Your task to perform on an android device: empty trash in the gmail app Image 0: 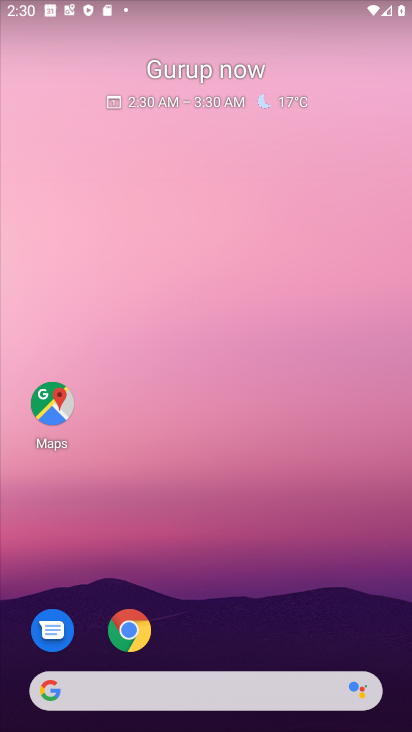
Step 0: drag from (277, 610) to (298, 70)
Your task to perform on an android device: empty trash in the gmail app Image 1: 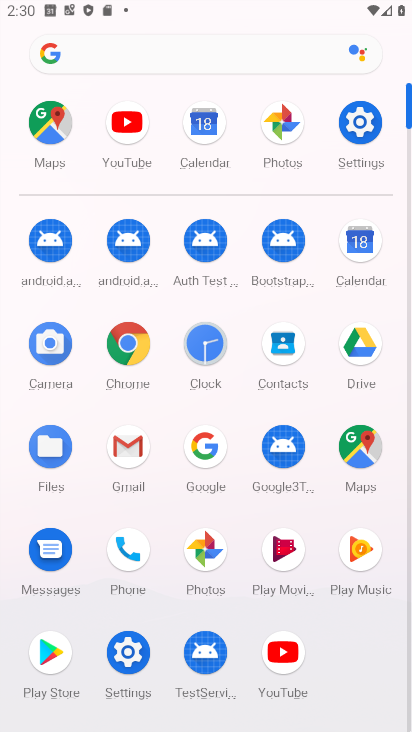
Step 1: click (133, 451)
Your task to perform on an android device: empty trash in the gmail app Image 2: 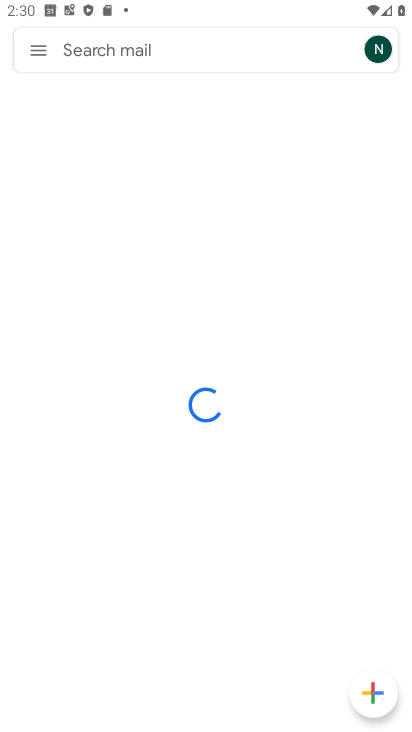
Step 2: click (41, 50)
Your task to perform on an android device: empty trash in the gmail app Image 3: 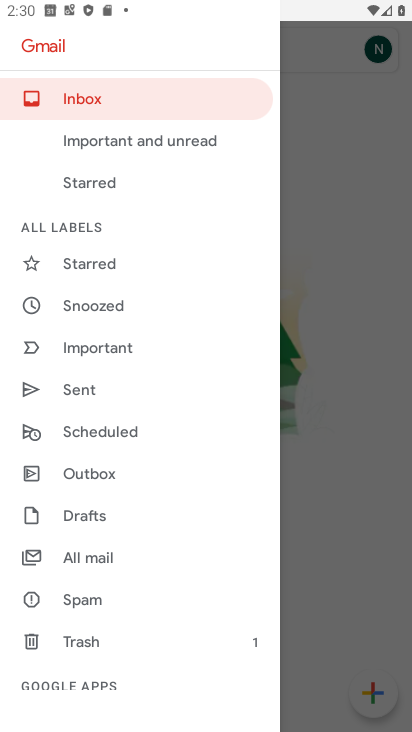
Step 3: click (93, 635)
Your task to perform on an android device: empty trash in the gmail app Image 4: 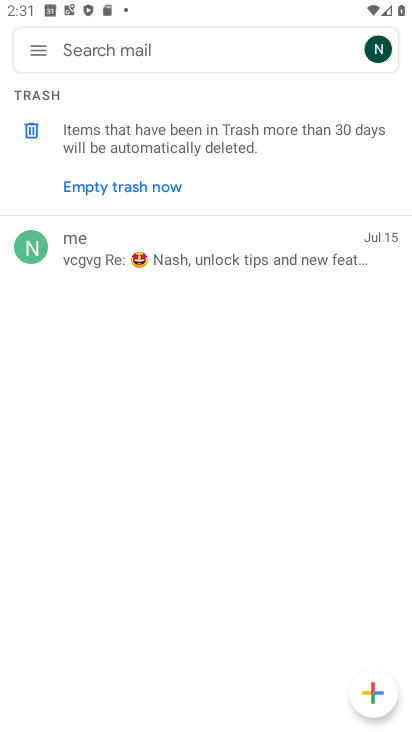
Step 4: click (161, 184)
Your task to perform on an android device: empty trash in the gmail app Image 5: 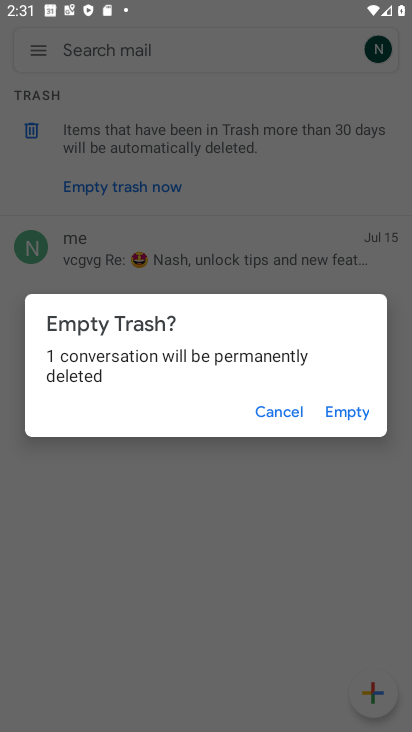
Step 5: click (336, 408)
Your task to perform on an android device: empty trash in the gmail app Image 6: 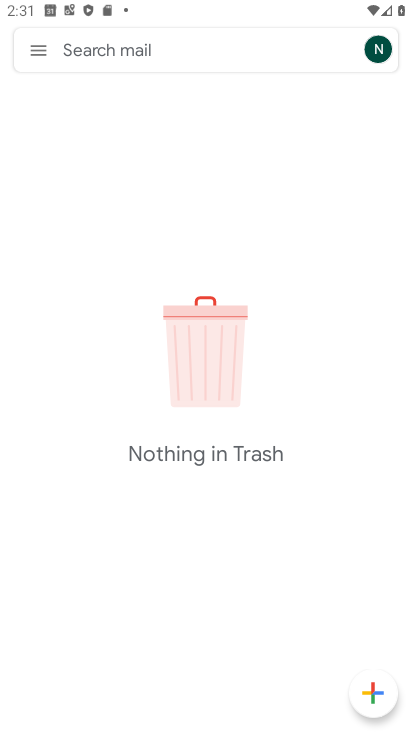
Step 6: task complete